Your task to perform on an android device: turn on the 12-hour format for clock Image 0: 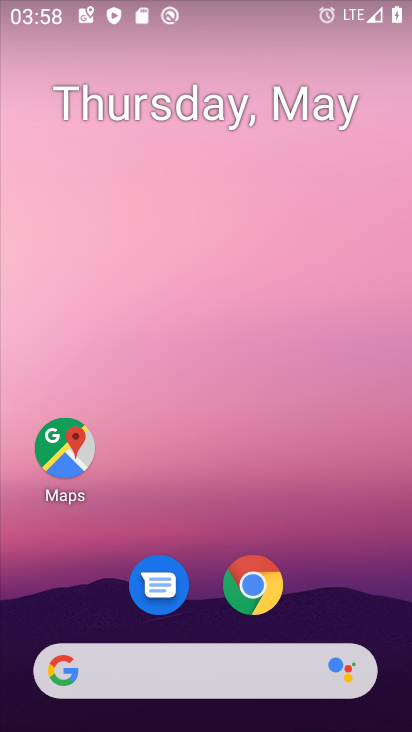
Step 0: drag from (200, 497) to (241, 44)
Your task to perform on an android device: turn on the 12-hour format for clock Image 1: 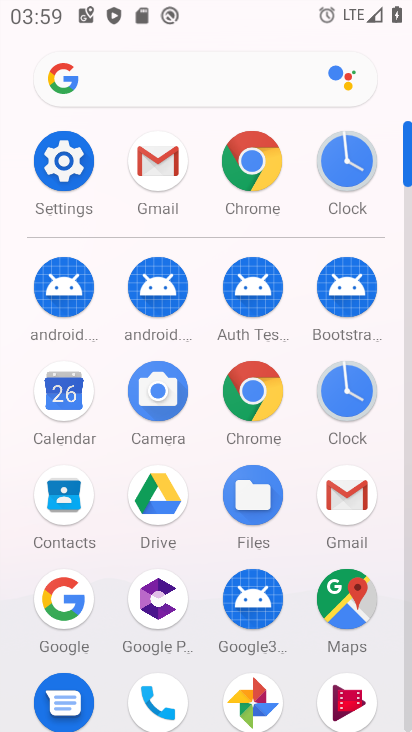
Step 1: click (350, 168)
Your task to perform on an android device: turn on the 12-hour format for clock Image 2: 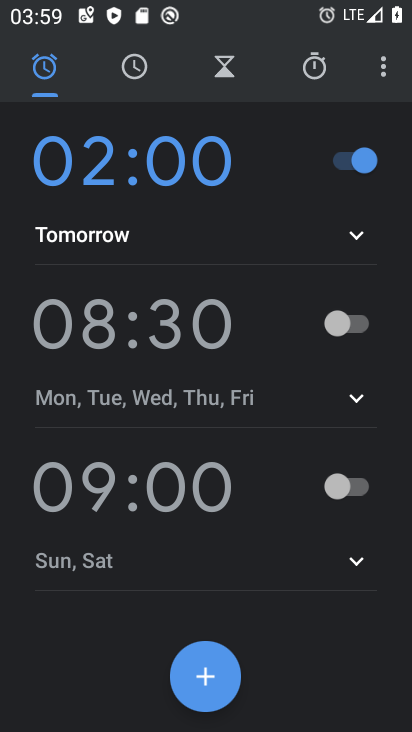
Step 2: click (377, 71)
Your task to perform on an android device: turn on the 12-hour format for clock Image 3: 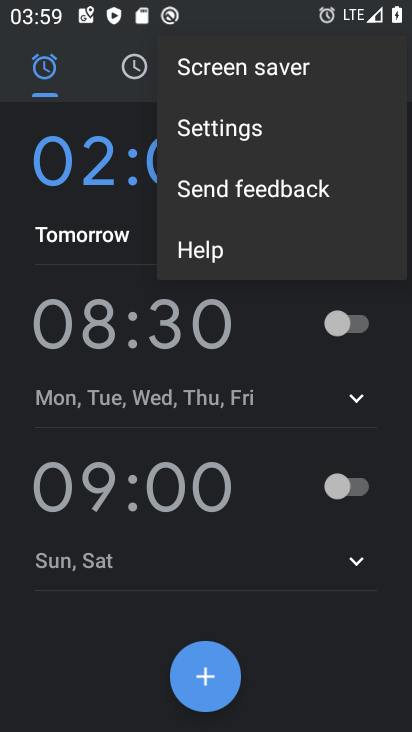
Step 3: click (319, 131)
Your task to perform on an android device: turn on the 12-hour format for clock Image 4: 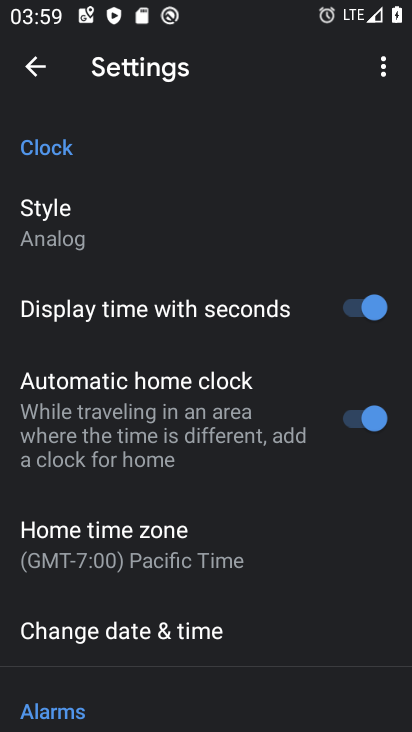
Step 4: click (271, 636)
Your task to perform on an android device: turn on the 12-hour format for clock Image 5: 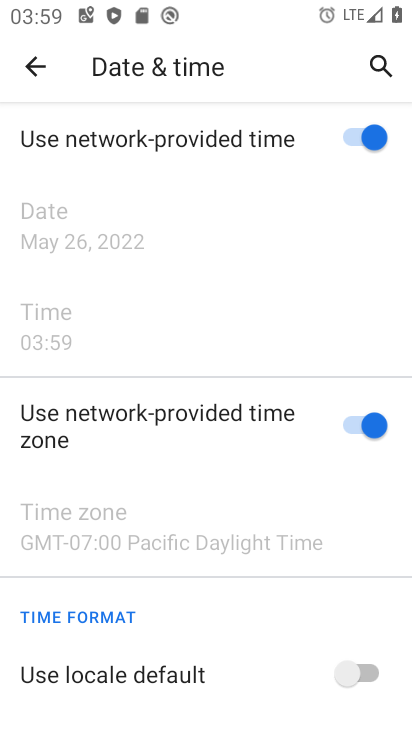
Step 5: drag from (271, 633) to (250, 400)
Your task to perform on an android device: turn on the 12-hour format for clock Image 6: 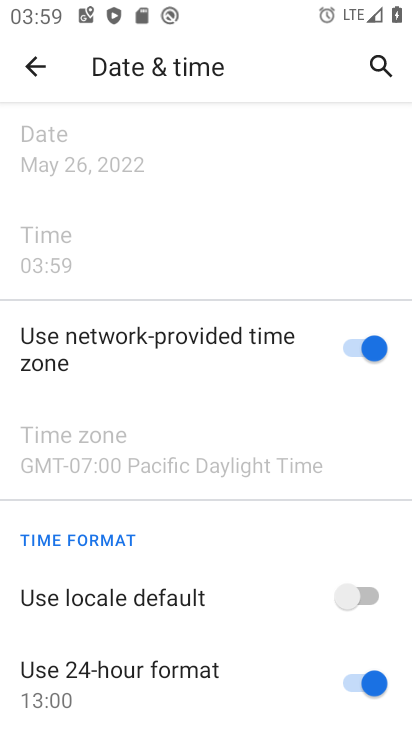
Step 6: click (354, 681)
Your task to perform on an android device: turn on the 12-hour format for clock Image 7: 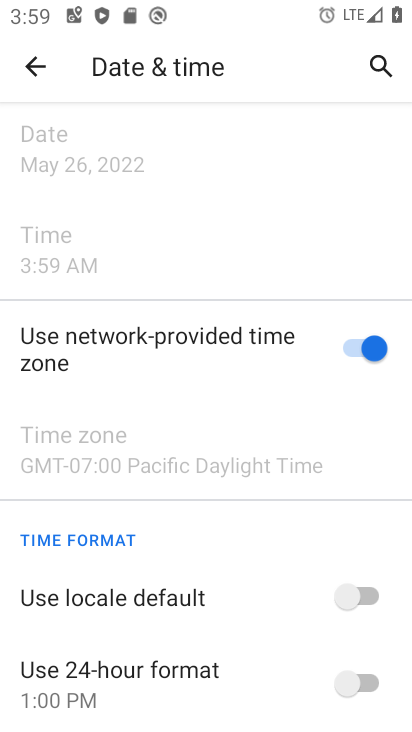
Step 7: click (364, 589)
Your task to perform on an android device: turn on the 12-hour format for clock Image 8: 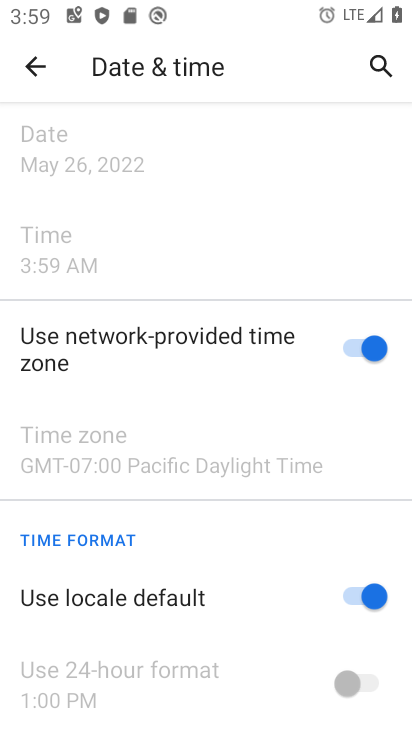
Step 8: task complete